Your task to perform on an android device: Go to Google maps Image 0: 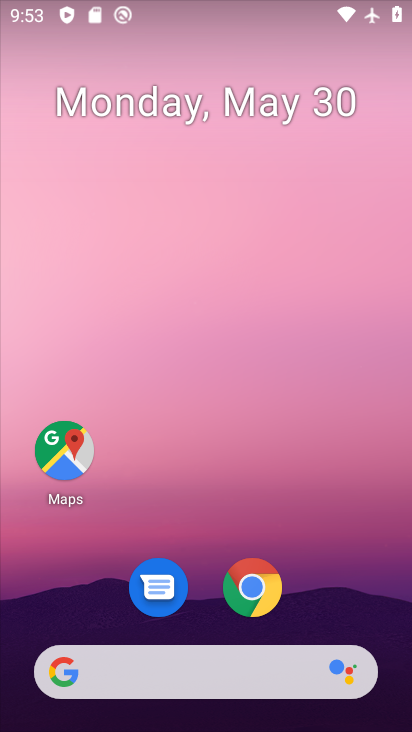
Step 0: drag from (333, 572) to (268, 0)
Your task to perform on an android device: Go to Google maps Image 1: 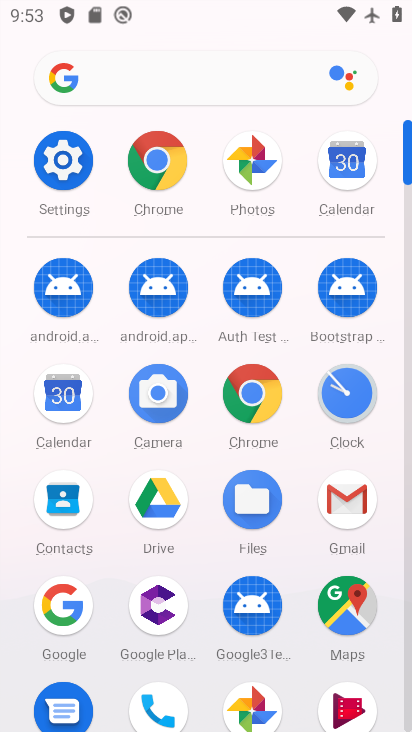
Step 1: drag from (26, 543) to (61, 149)
Your task to perform on an android device: Go to Google maps Image 2: 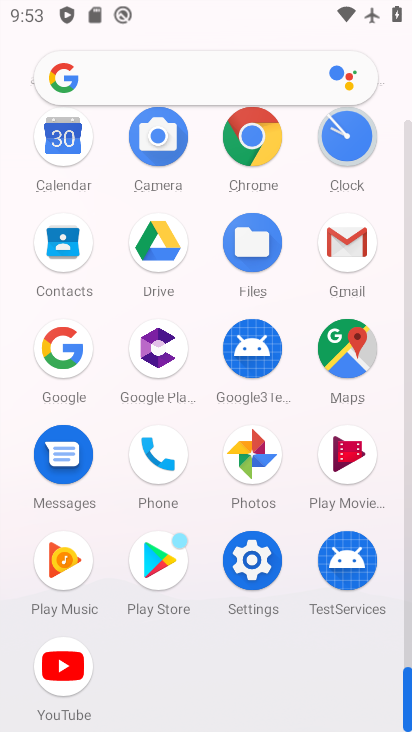
Step 2: click (341, 343)
Your task to perform on an android device: Go to Google maps Image 3: 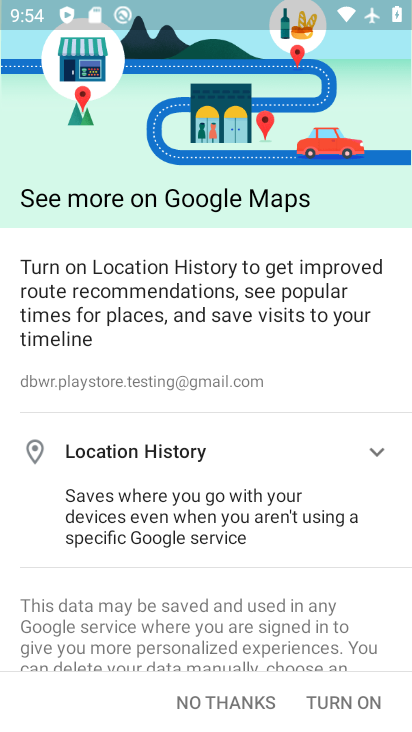
Step 3: click (356, 690)
Your task to perform on an android device: Go to Google maps Image 4: 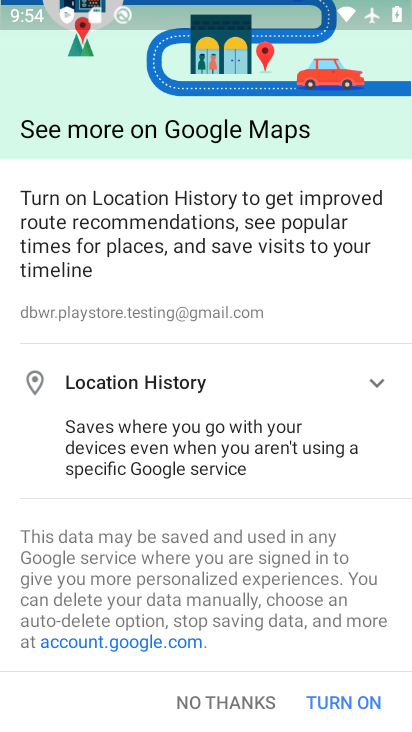
Step 4: click (356, 700)
Your task to perform on an android device: Go to Google maps Image 5: 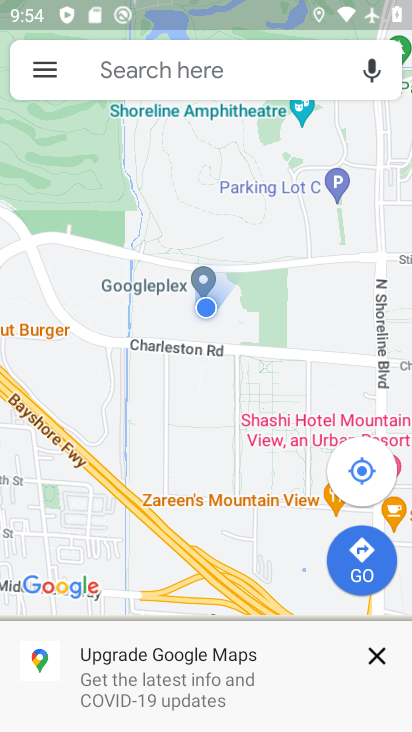
Step 5: task complete